Your task to perform on an android device: Go to notification settings Image 0: 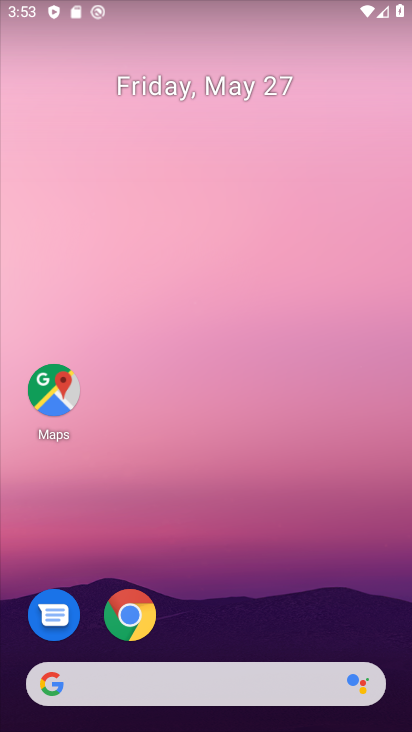
Step 0: drag from (206, 610) to (312, 149)
Your task to perform on an android device: Go to notification settings Image 1: 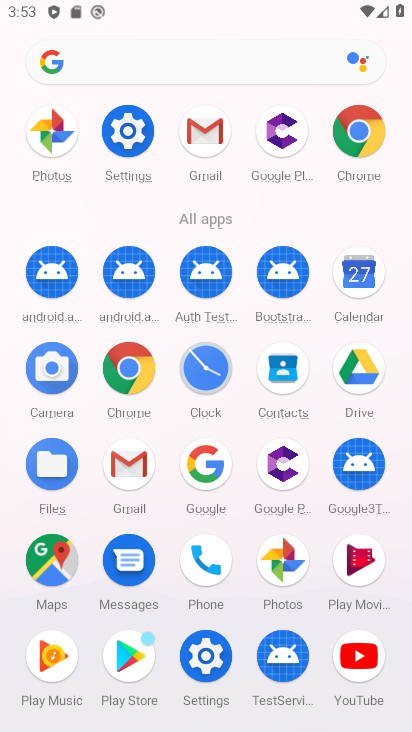
Step 1: drag from (175, 633) to (284, 325)
Your task to perform on an android device: Go to notification settings Image 2: 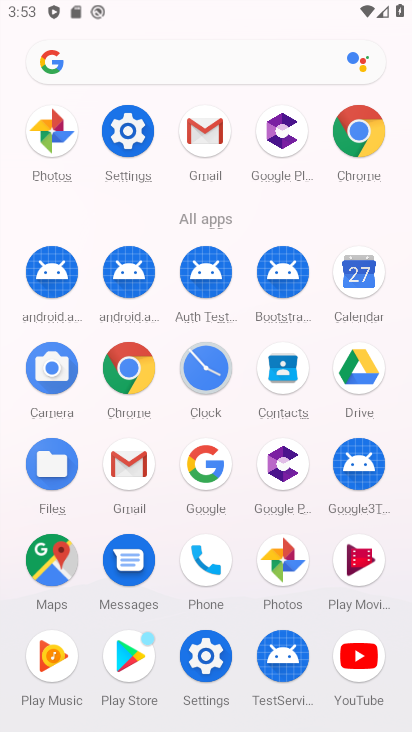
Step 2: click (204, 667)
Your task to perform on an android device: Go to notification settings Image 3: 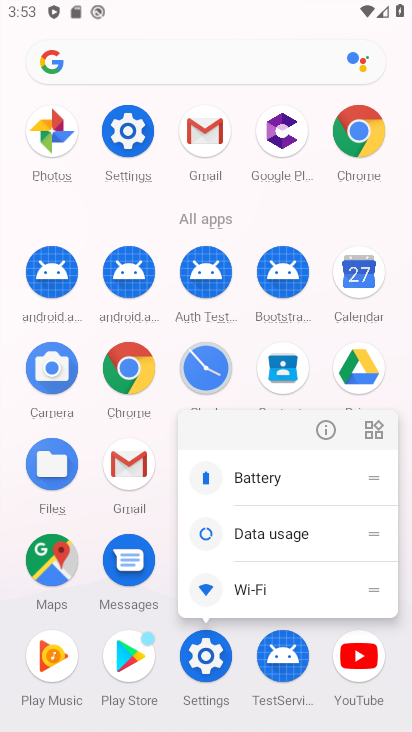
Step 3: click (201, 665)
Your task to perform on an android device: Go to notification settings Image 4: 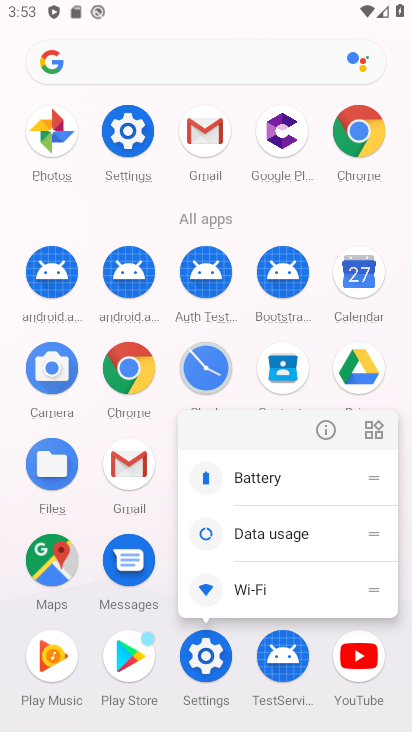
Step 4: click (201, 664)
Your task to perform on an android device: Go to notification settings Image 5: 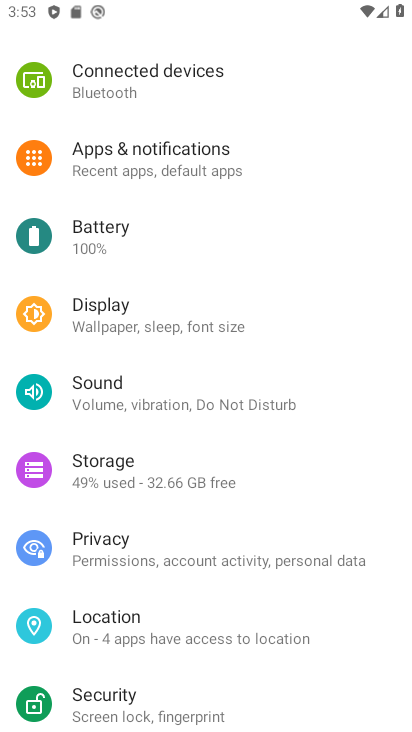
Step 5: drag from (211, 206) to (288, 354)
Your task to perform on an android device: Go to notification settings Image 6: 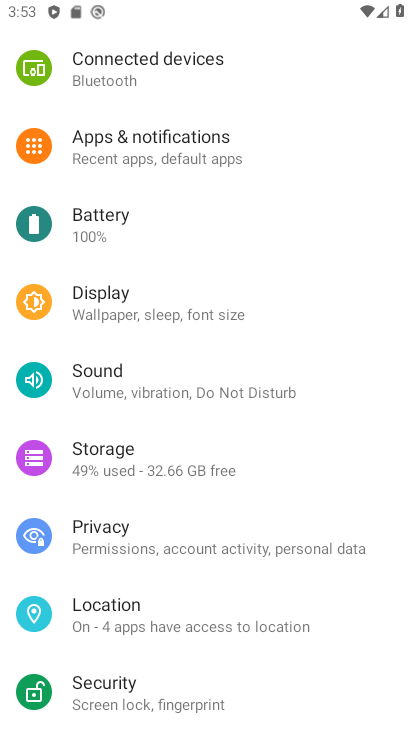
Step 6: click (238, 153)
Your task to perform on an android device: Go to notification settings Image 7: 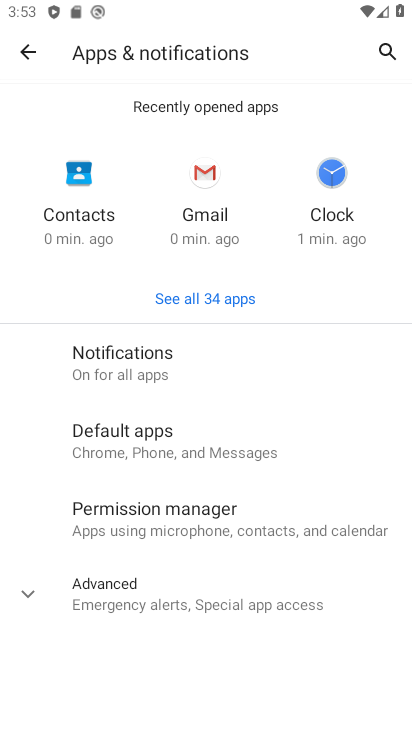
Step 7: click (227, 374)
Your task to perform on an android device: Go to notification settings Image 8: 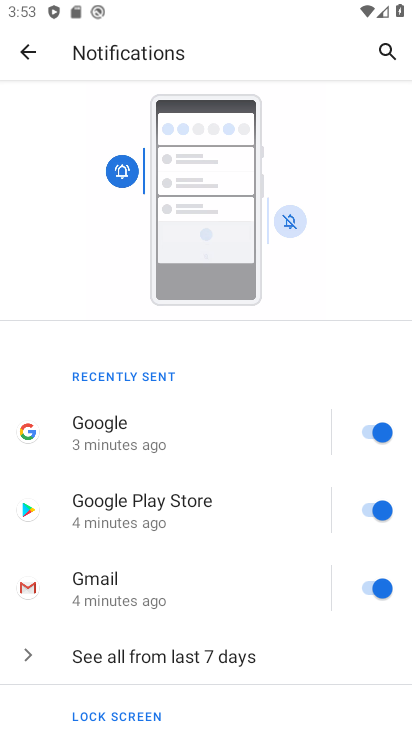
Step 8: task complete